Your task to perform on an android device: turn vacation reply on in the gmail app Image 0: 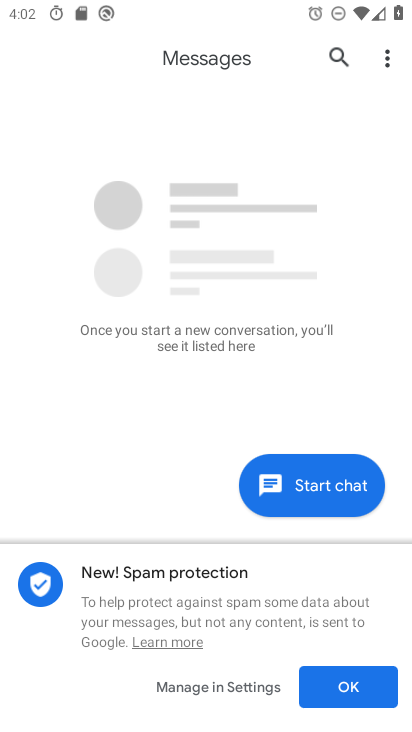
Step 0: press home button
Your task to perform on an android device: turn vacation reply on in the gmail app Image 1: 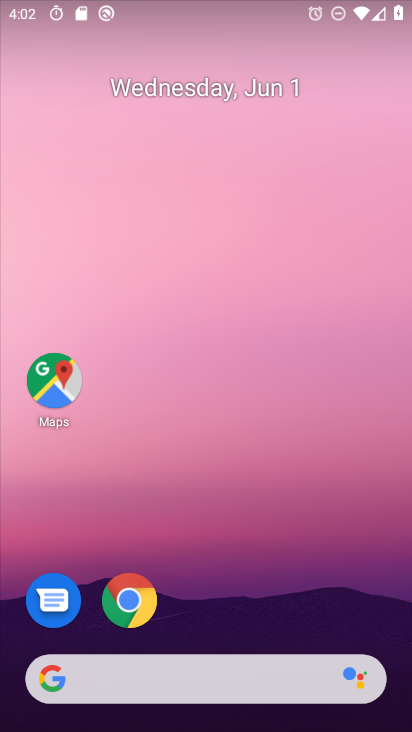
Step 1: drag from (206, 622) to (206, 15)
Your task to perform on an android device: turn vacation reply on in the gmail app Image 2: 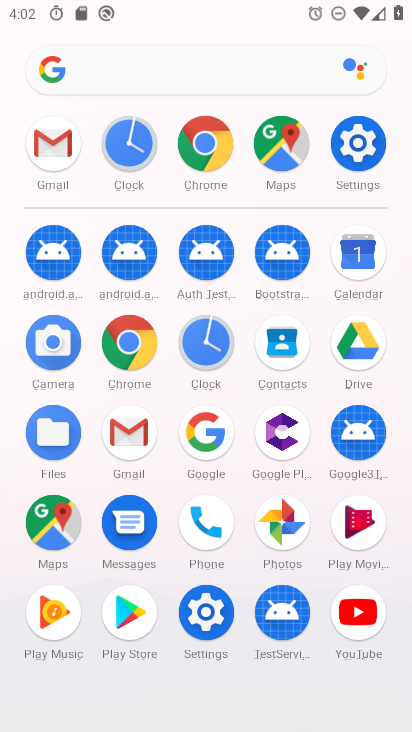
Step 2: click (122, 454)
Your task to perform on an android device: turn vacation reply on in the gmail app Image 3: 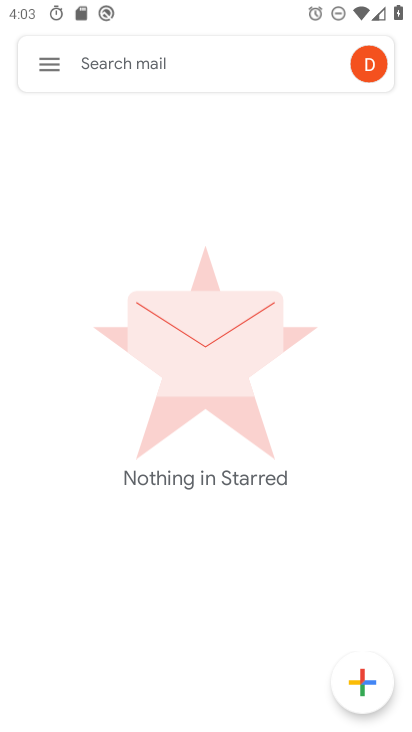
Step 3: click (49, 67)
Your task to perform on an android device: turn vacation reply on in the gmail app Image 4: 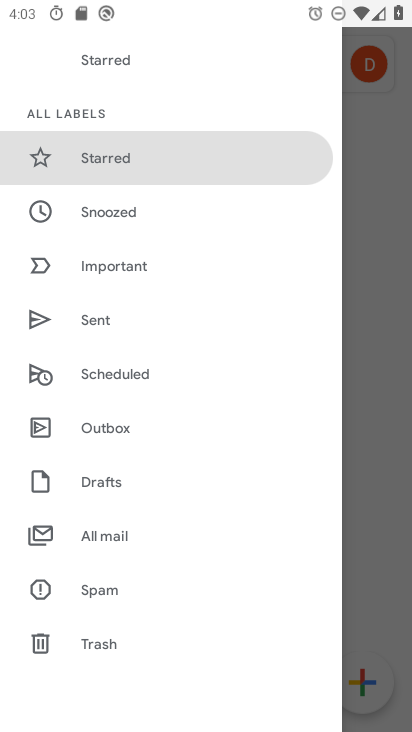
Step 4: drag from (145, 634) to (155, 349)
Your task to perform on an android device: turn vacation reply on in the gmail app Image 5: 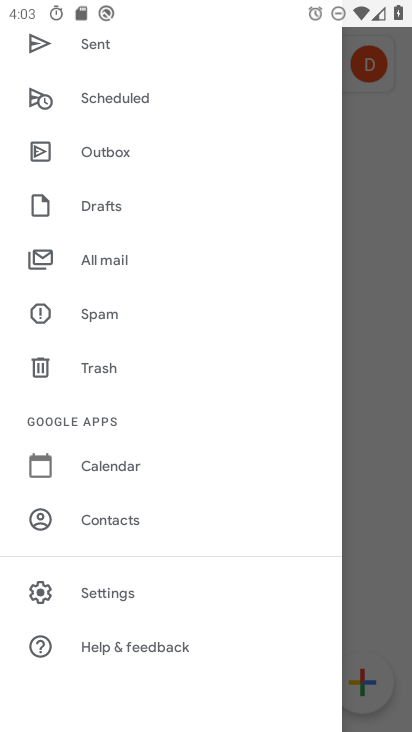
Step 5: click (115, 597)
Your task to perform on an android device: turn vacation reply on in the gmail app Image 6: 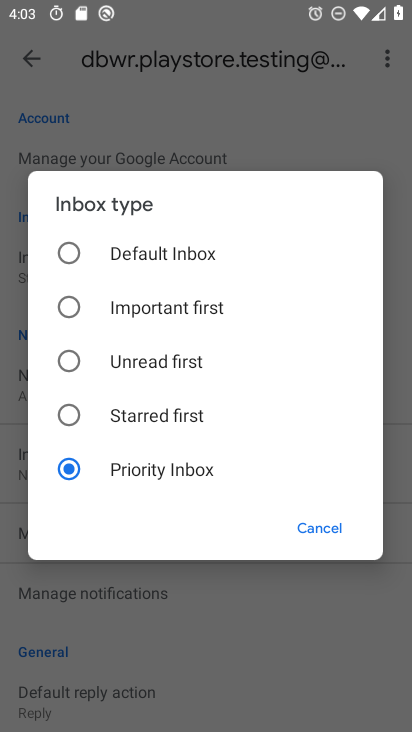
Step 6: click (331, 527)
Your task to perform on an android device: turn vacation reply on in the gmail app Image 7: 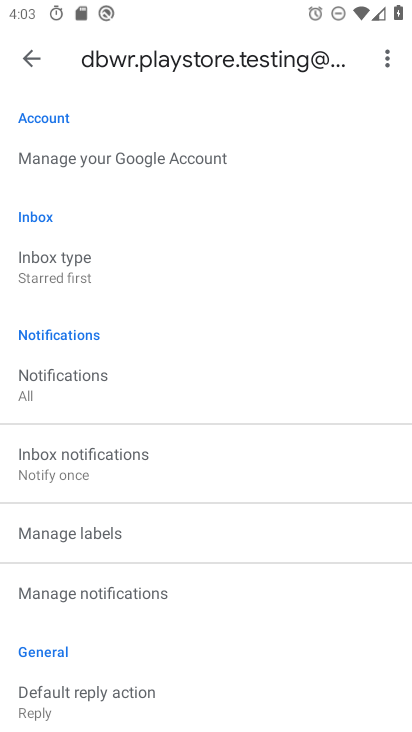
Step 7: drag from (110, 659) to (126, 413)
Your task to perform on an android device: turn vacation reply on in the gmail app Image 8: 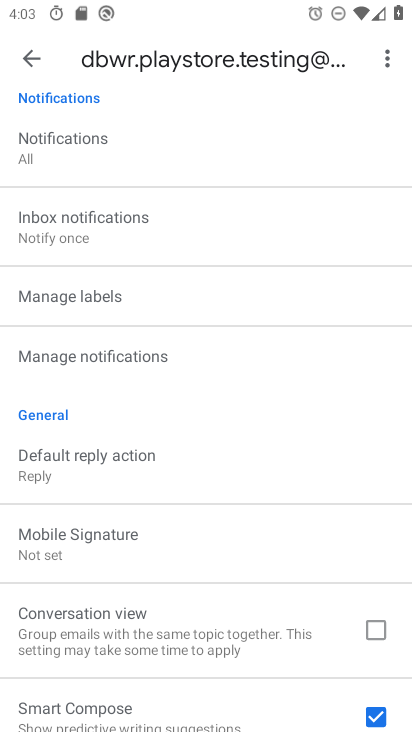
Step 8: drag from (114, 661) to (127, 318)
Your task to perform on an android device: turn vacation reply on in the gmail app Image 9: 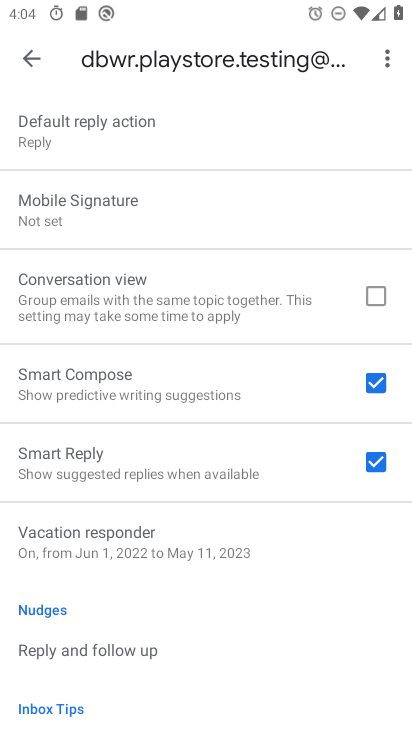
Step 9: click (122, 541)
Your task to perform on an android device: turn vacation reply on in the gmail app Image 10: 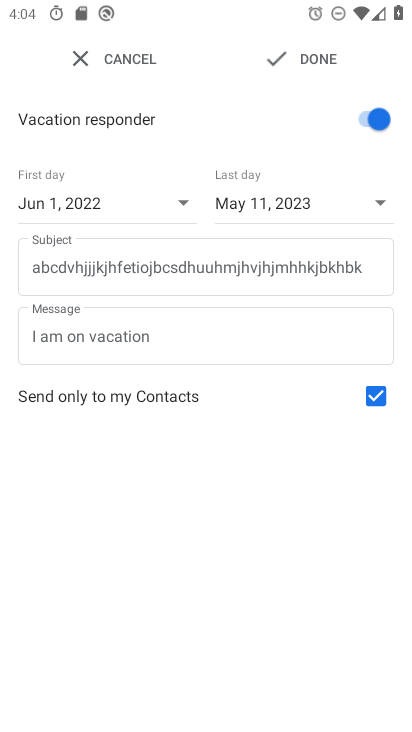
Step 10: task complete